Your task to perform on an android device: What's on the menu at McDonalds? Image 0: 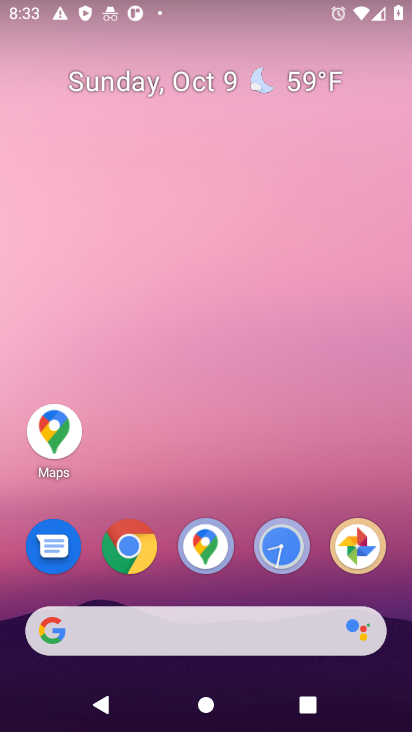
Step 0: click (134, 551)
Your task to perform on an android device: What's on the menu at McDonalds? Image 1: 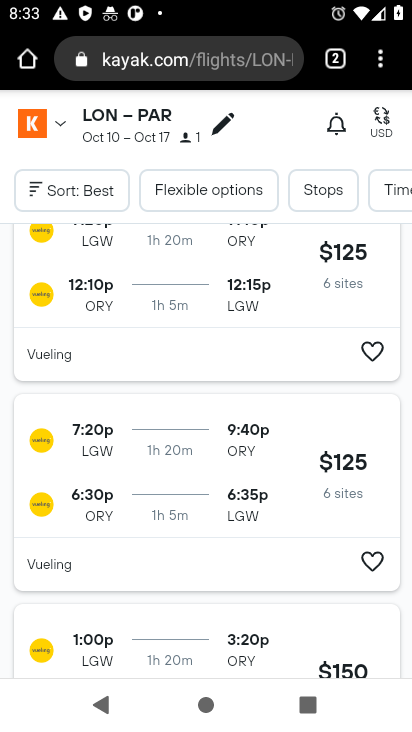
Step 1: click (214, 64)
Your task to perform on an android device: What's on the menu at McDonalds? Image 2: 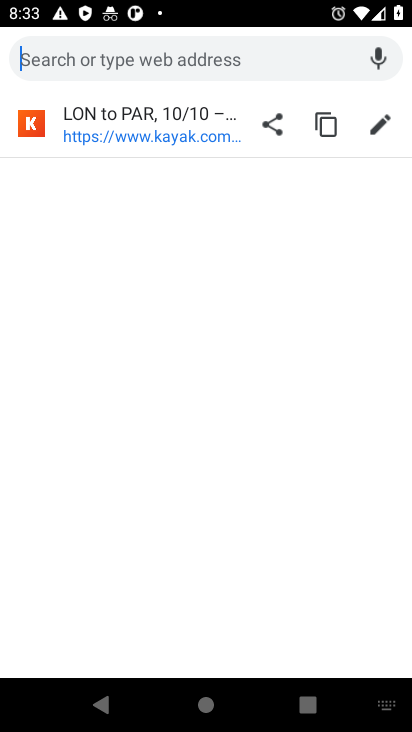
Step 2: press back button
Your task to perform on an android device: What's on the menu at McDonalds? Image 3: 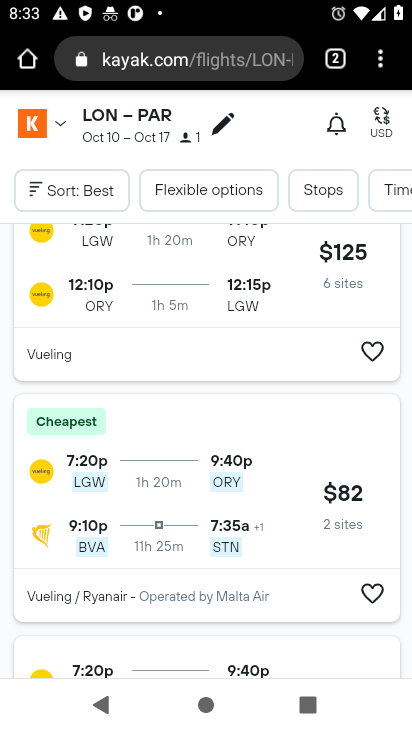
Step 3: click (391, 65)
Your task to perform on an android device: What's on the menu at McDonalds? Image 4: 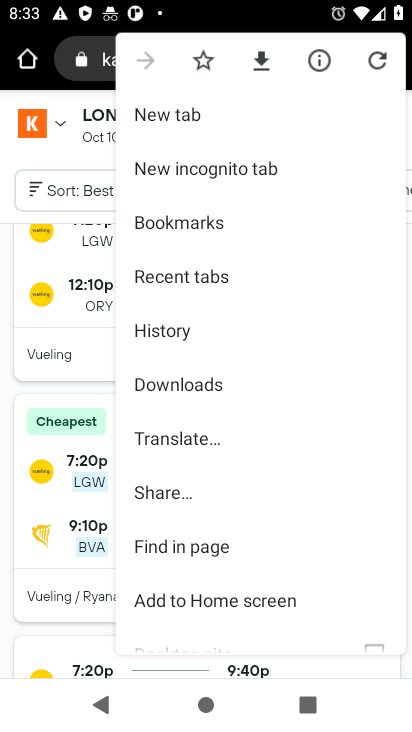
Step 4: click (29, 175)
Your task to perform on an android device: What's on the menu at McDonalds? Image 5: 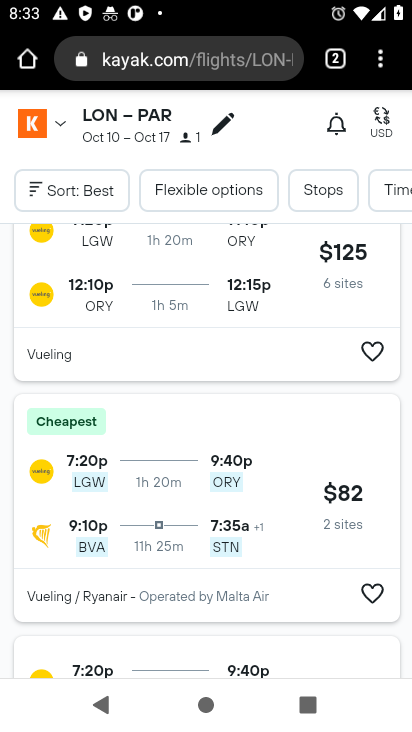
Step 5: click (334, 68)
Your task to perform on an android device: What's on the menu at McDonalds? Image 6: 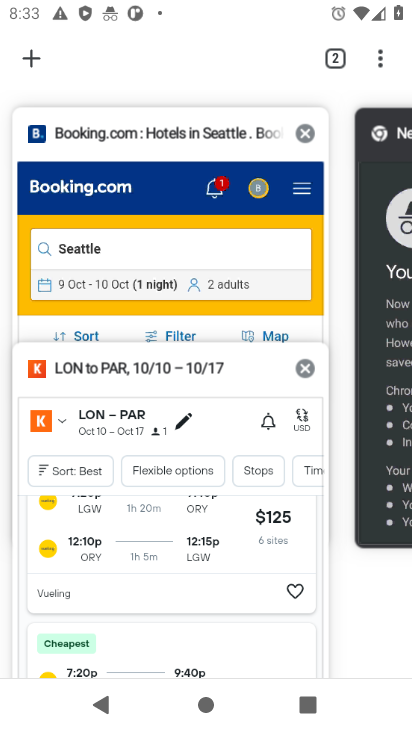
Step 6: click (399, 136)
Your task to perform on an android device: What's on the menu at McDonalds? Image 7: 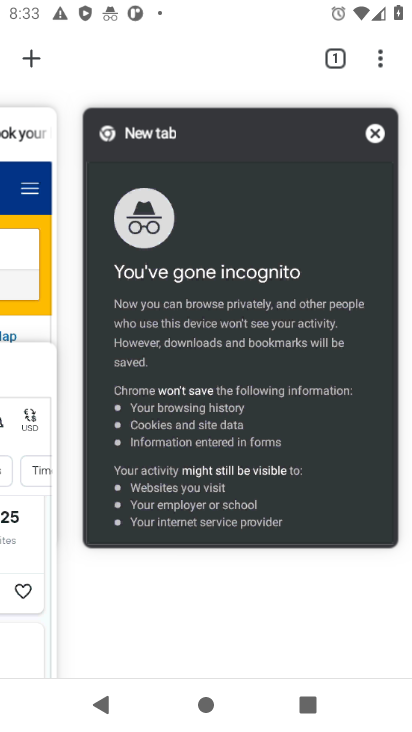
Step 7: click (371, 135)
Your task to perform on an android device: What's on the menu at McDonalds? Image 8: 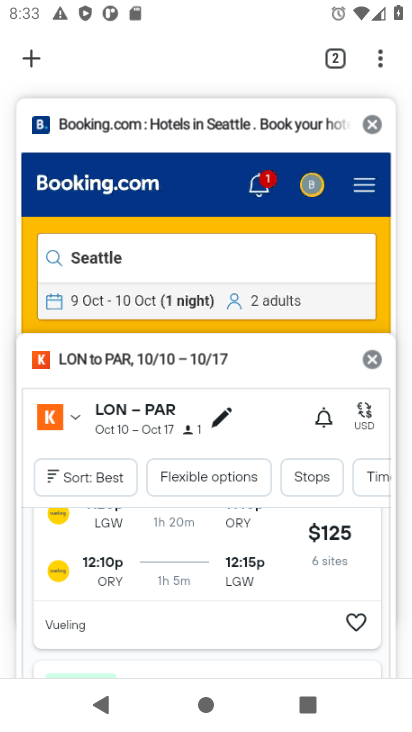
Step 8: click (373, 125)
Your task to perform on an android device: What's on the menu at McDonalds? Image 9: 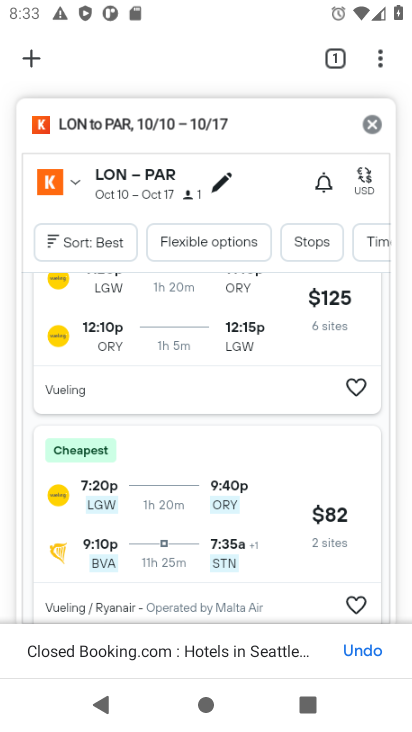
Step 9: click (373, 125)
Your task to perform on an android device: What's on the menu at McDonalds? Image 10: 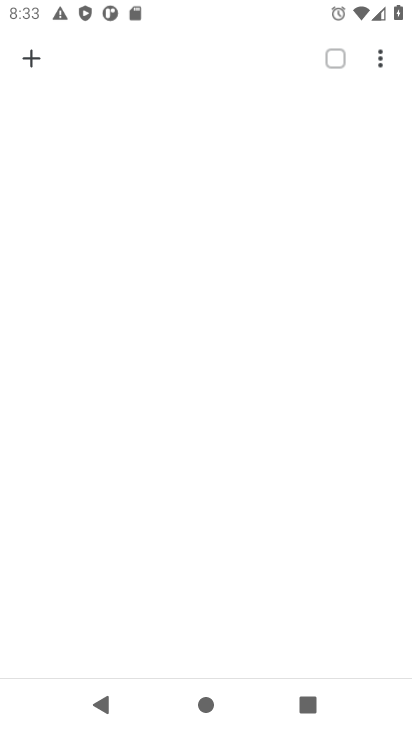
Step 10: click (23, 57)
Your task to perform on an android device: What's on the menu at McDonalds? Image 11: 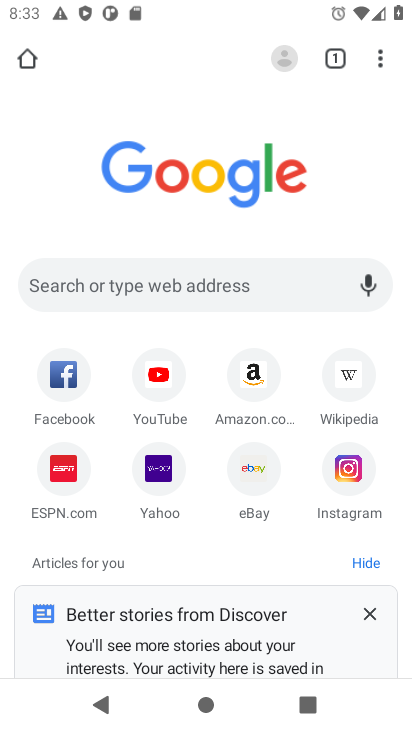
Step 11: click (172, 286)
Your task to perform on an android device: What's on the menu at McDonalds? Image 12: 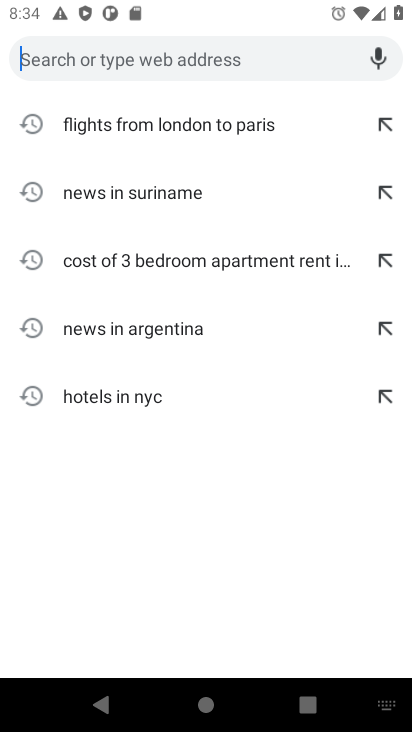
Step 12: type "menu at mcdonalds"
Your task to perform on an android device: What's on the menu at McDonalds? Image 13: 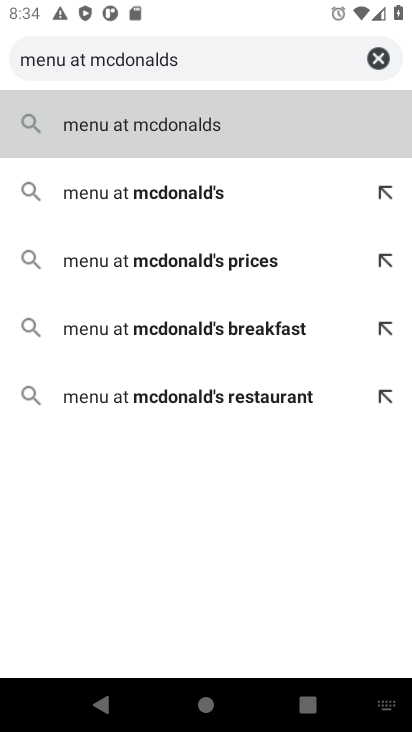
Step 13: type ""
Your task to perform on an android device: What's on the menu at McDonalds? Image 14: 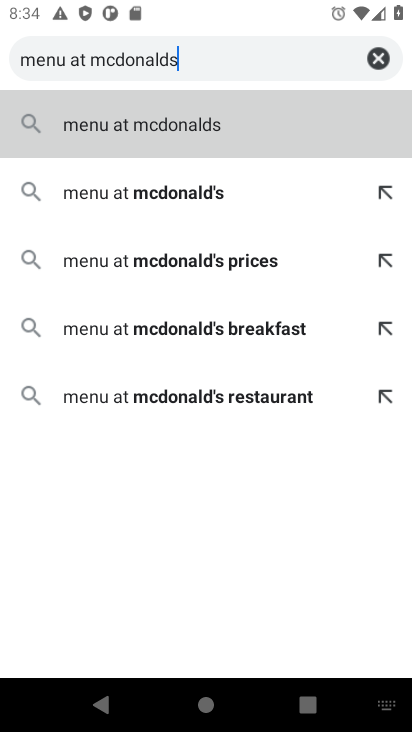
Step 14: press enter
Your task to perform on an android device: What's on the menu at McDonalds? Image 15: 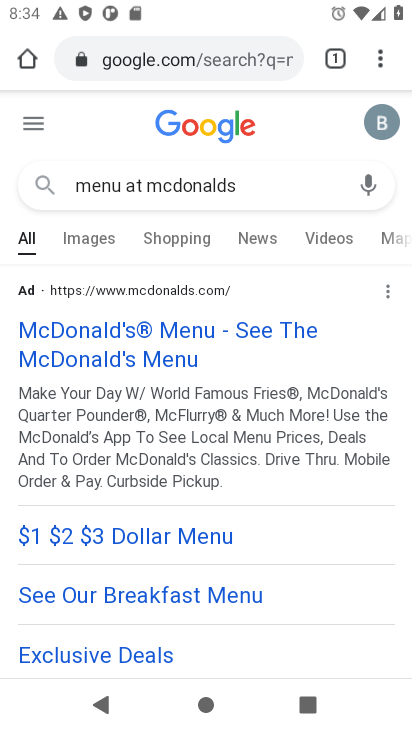
Step 15: click (57, 355)
Your task to perform on an android device: What's on the menu at McDonalds? Image 16: 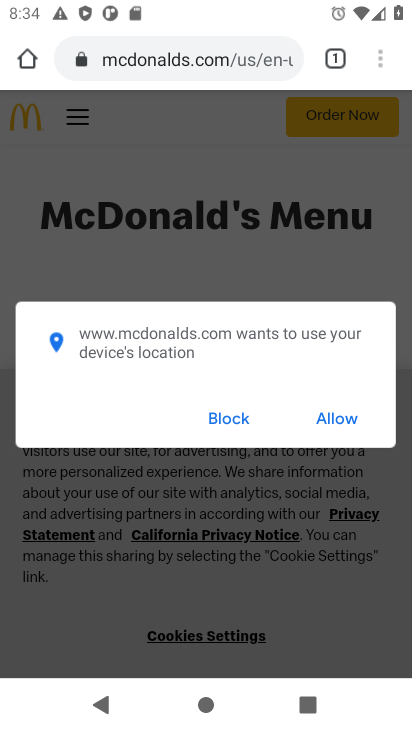
Step 16: click (340, 422)
Your task to perform on an android device: What's on the menu at McDonalds? Image 17: 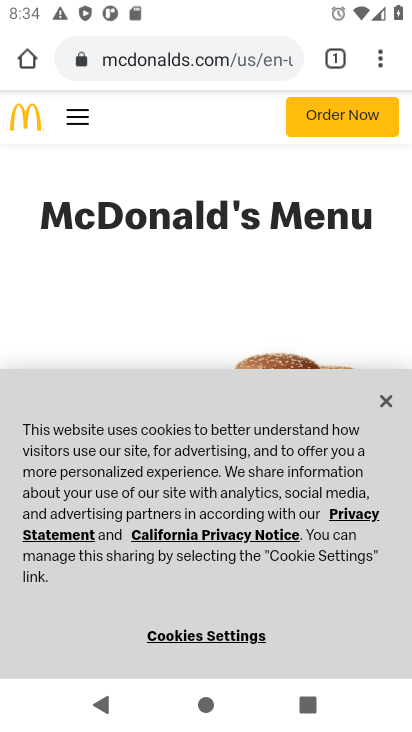
Step 17: click (223, 644)
Your task to perform on an android device: What's on the menu at McDonalds? Image 18: 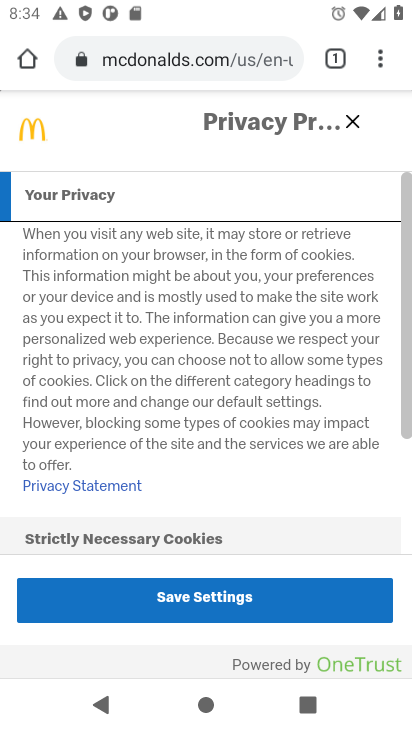
Step 18: click (218, 604)
Your task to perform on an android device: What's on the menu at McDonalds? Image 19: 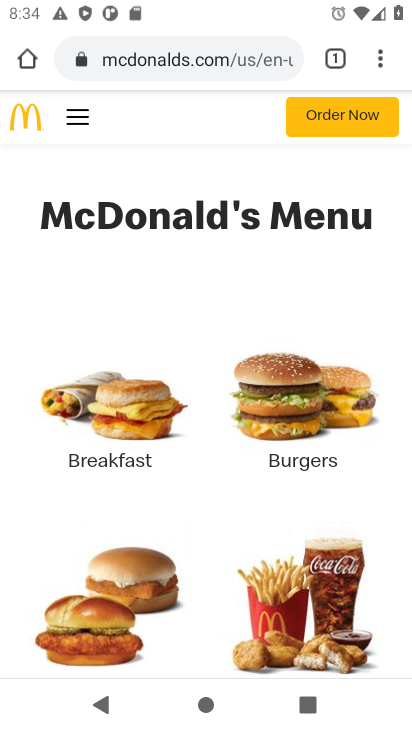
Step 19: task complete